Your task to perform on an android device: Open settings Image 0: 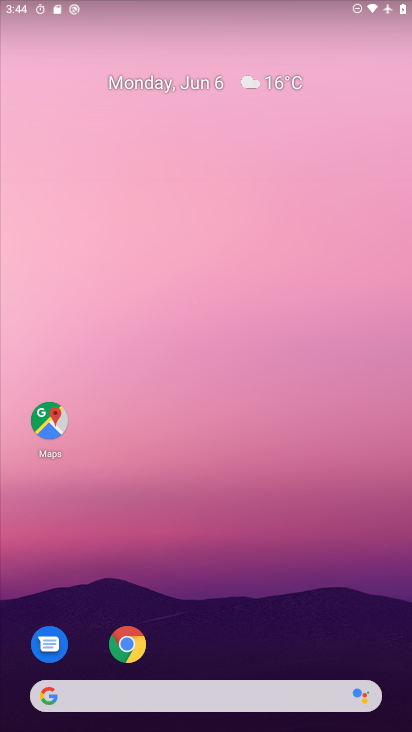
Step 0: drag from (247, 642) to (234, 36)
Your task to perform on an android device: Open settings Image 1: 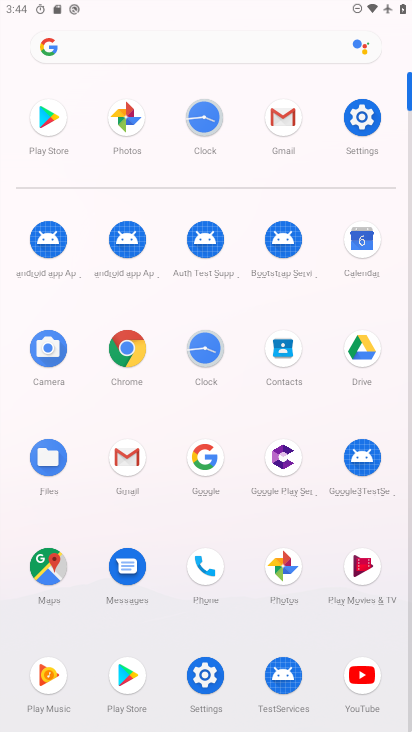
Step 1: click (366, 119)
Your task to perform on an android device: Open settings Image 2: 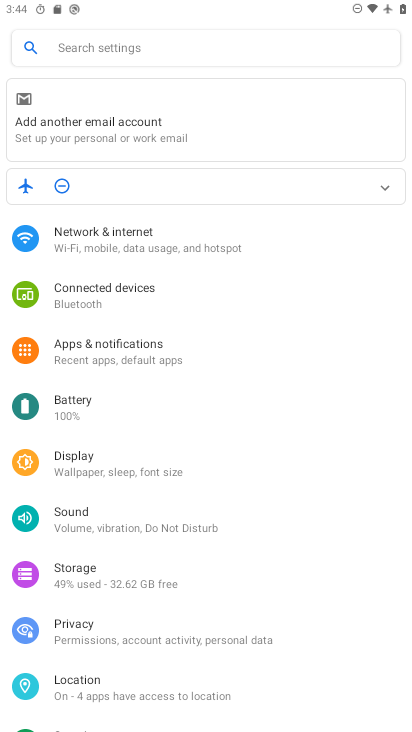
Step 2: task complete